Your task to perform on an android device: toggle location history Image 0: 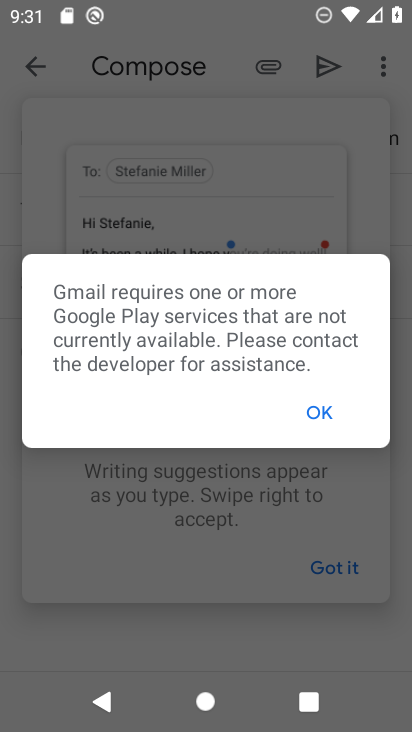
Step 0: press home button
Your task to perform on an android device: toggle location history Image 1: 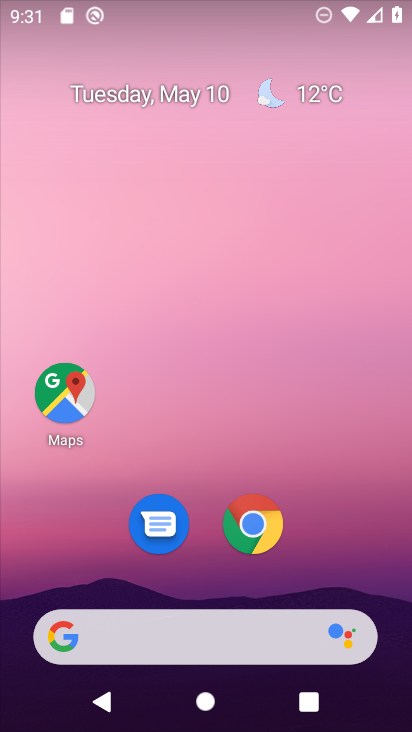
Step 1: drag from (308, 526) to (300, 40)
Your task to perform on an android device: toggle location history Image 2: 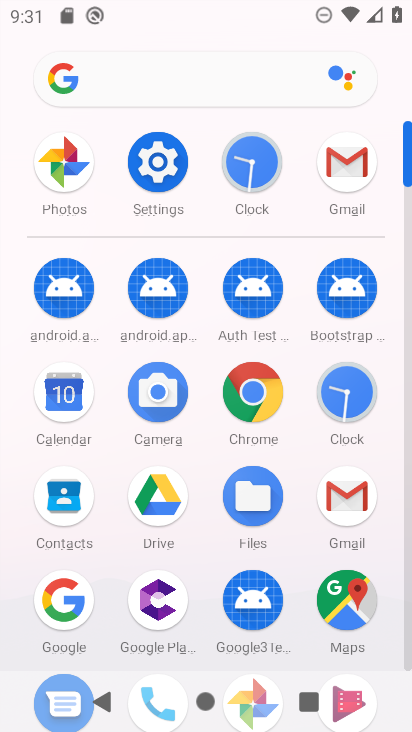
Step 2: click (160, 173)
Your task to perform on an android device: toggle location history Image 3: 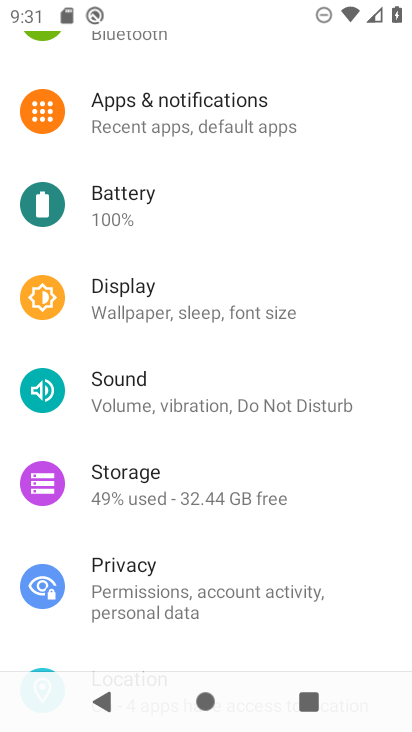
Step 3: drag from (184, 536) to (164, 162)
Your task to perform on an android device: toggle location history Image 4: 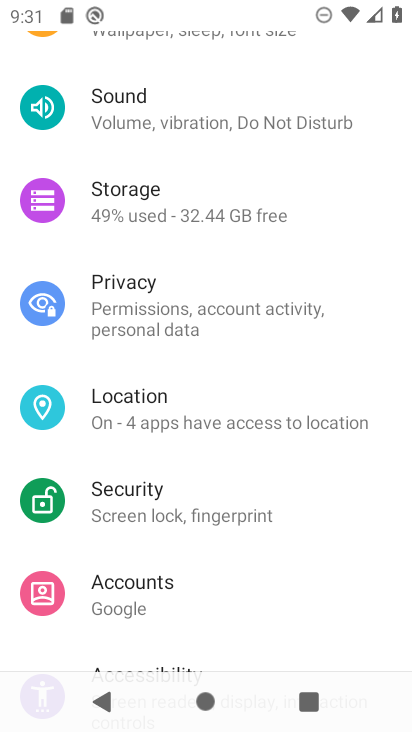
Step 4: click (184, 406)
Your task to perform on an android device: toggle location history Image 5: 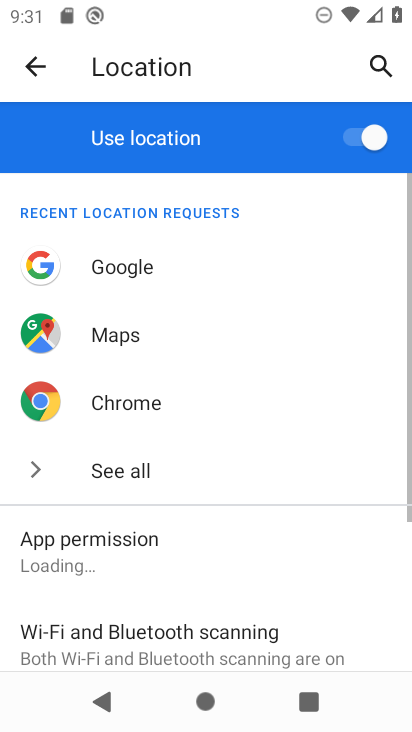
Step 5: drag from (236, 578) to (258, 185)
Your task to perform on an android device: toggle location history Image 6: 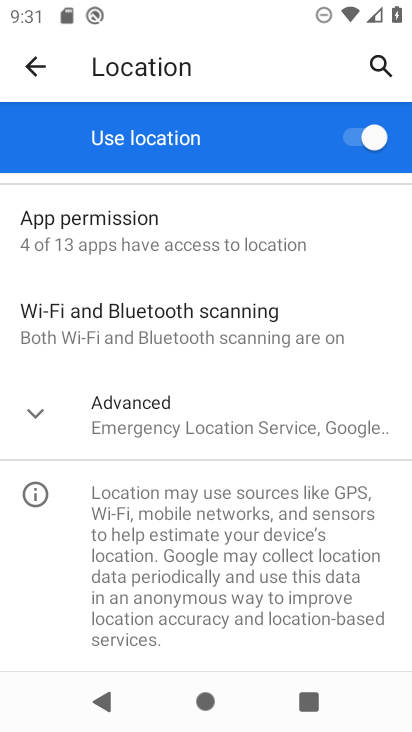
Step 6: click (34, 416)
Your task to perform on an android device: toggle location history Image 7: 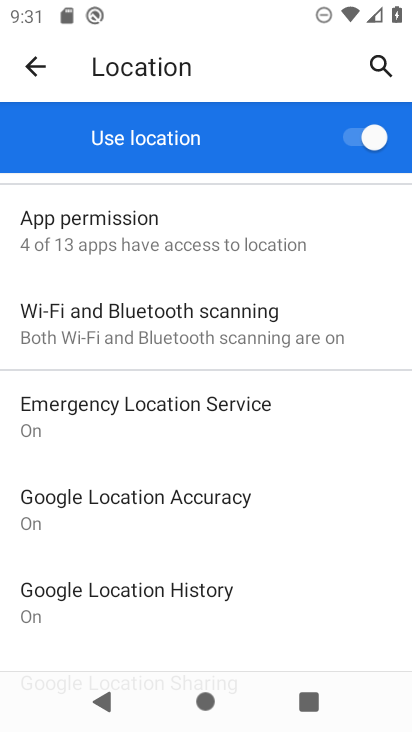
Step 7: click (128, 604)
Your task to perform on an android device: toggle location history Image 8: 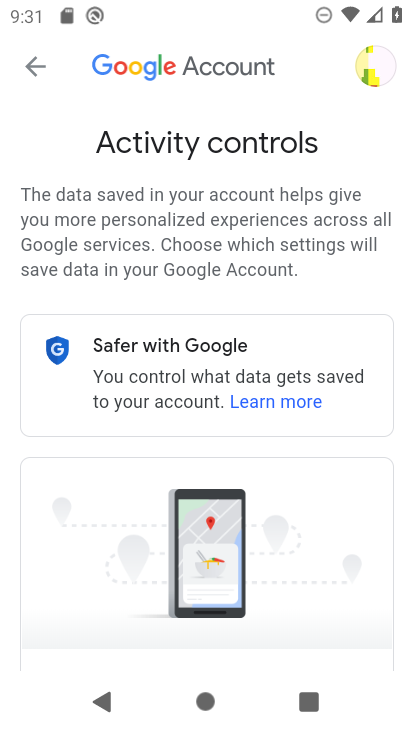
Step 8: drag from (279, 530) to (269, 168)
Your task to perform on an android device: toggle location history Image 9: 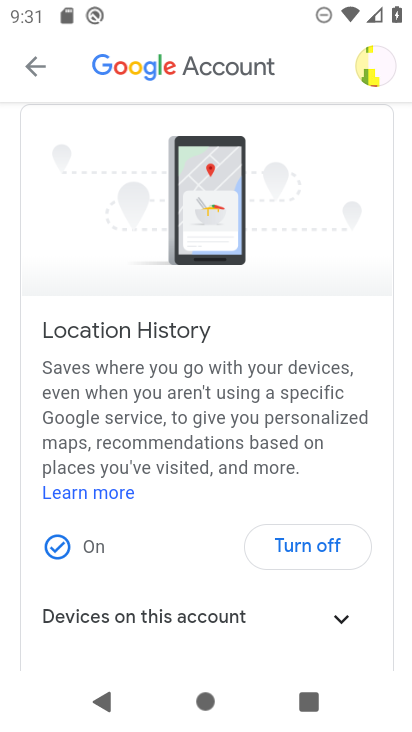
Step 9: click (310, 537)
Your task to perform on an android device: toggle location history Image 10: 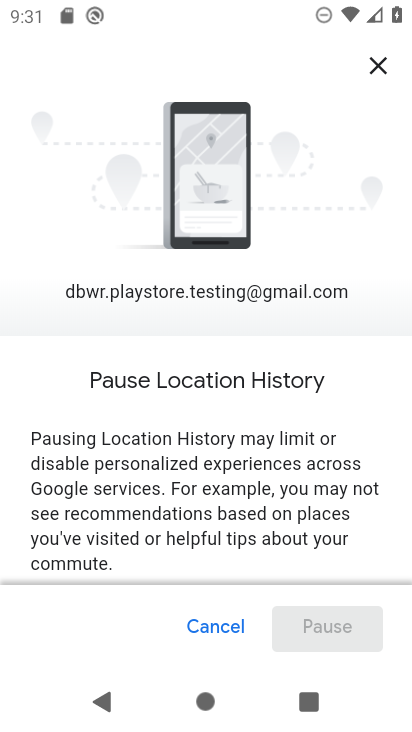
Step 10: drag from (310, 528) to (299, 76)
Your task to perform on an android device: toggle location history Image 11: 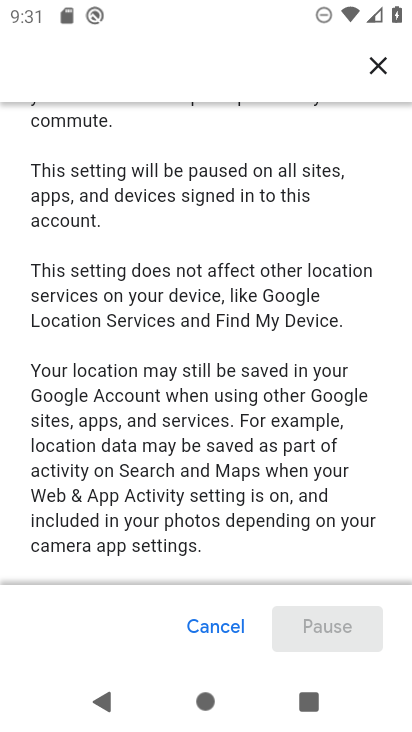
Step 11: drag from (245, 512) to (242, 214)
Your task to perform on an android device: toggle location history Image 12: 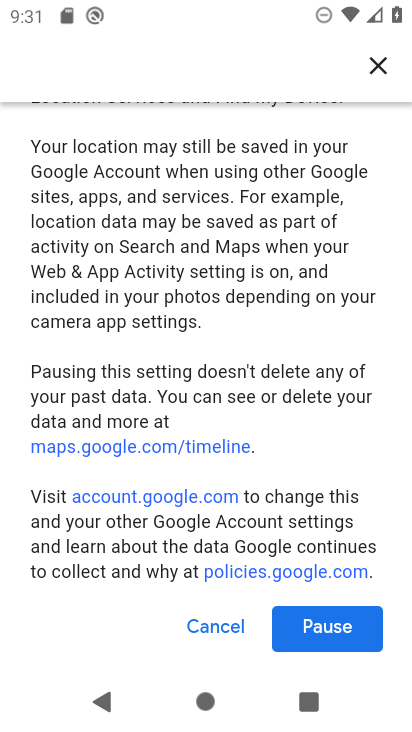
Step 12: click (324, 626)
Your task to perform on an android device: toggle location history Image 13: 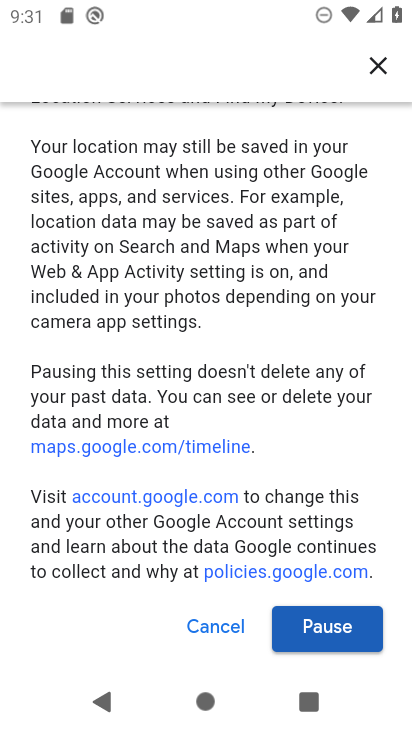
Step 13: click (324, 622)
Your task to perform on an android device: toggle location history Image 14: 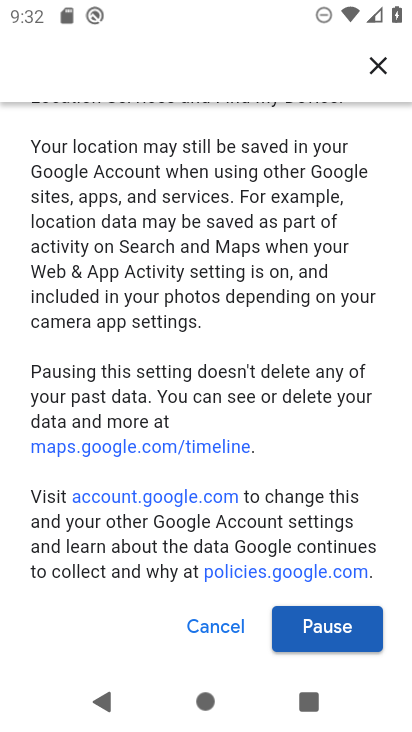
Step 14: click (324, 622)
Your task to perform on an android device: toggle location history Image 15: 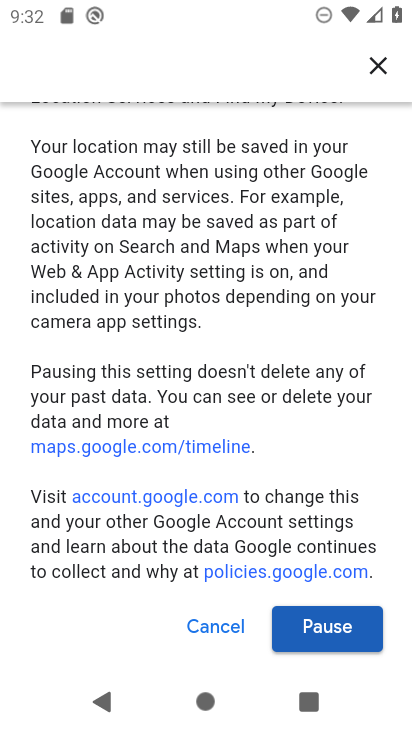
Step 15: click (348, 626)
Your task to perform on an android device: toggle location history Image 16: 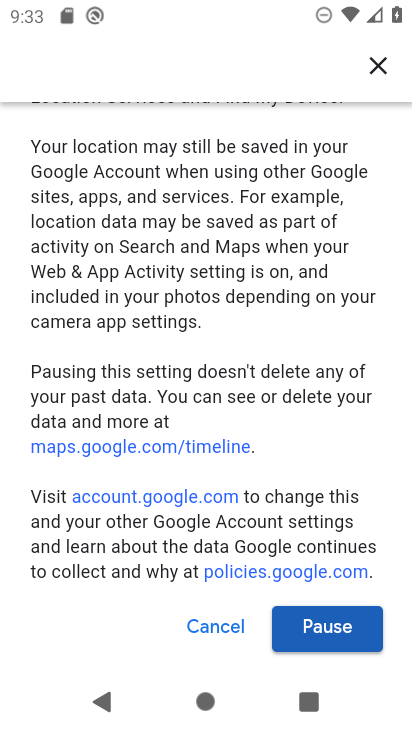
Step 16: click (352, 627)
Your task to perform on an android device: toggle location history Image 17: 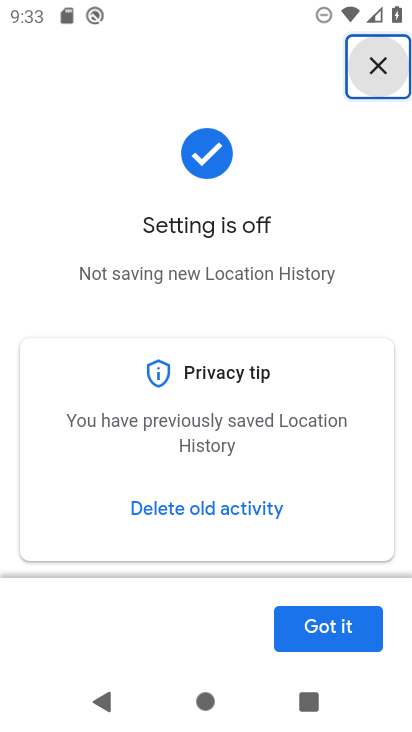
Step 17: click (352, 625)
Your task to perform on an android device: toggle location history Image 18: 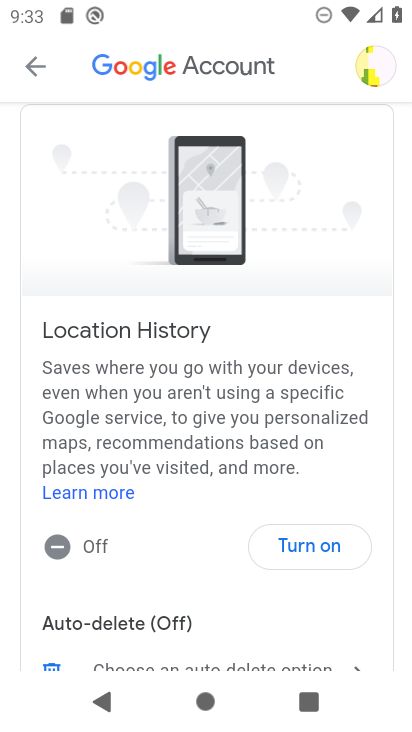
Step 18: task complete